Your task to perform on an android device: Open settings Image 0: 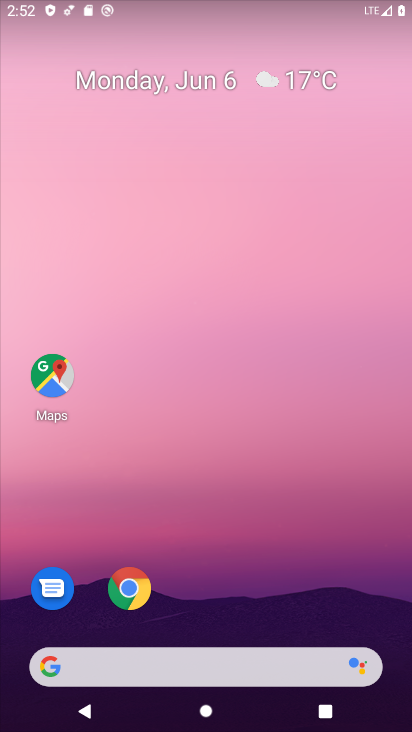
Step 0: drag from (273, 653) to (294, 218)
Your task to perform on an android device: Open settings Image 1: 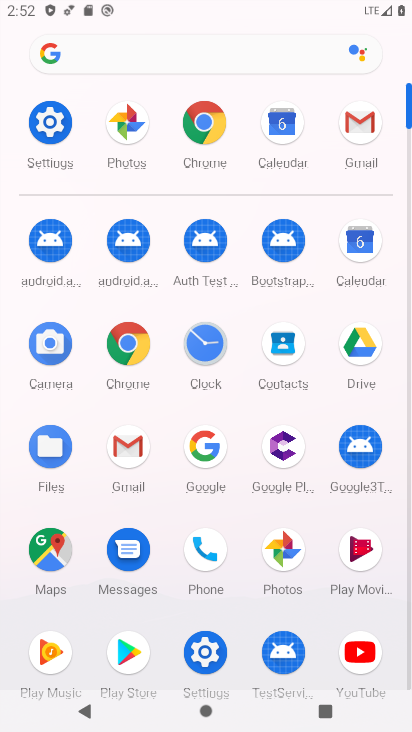
Step 1: click (58, 112)
Your task to perform on an android device: Open settings Image 2: 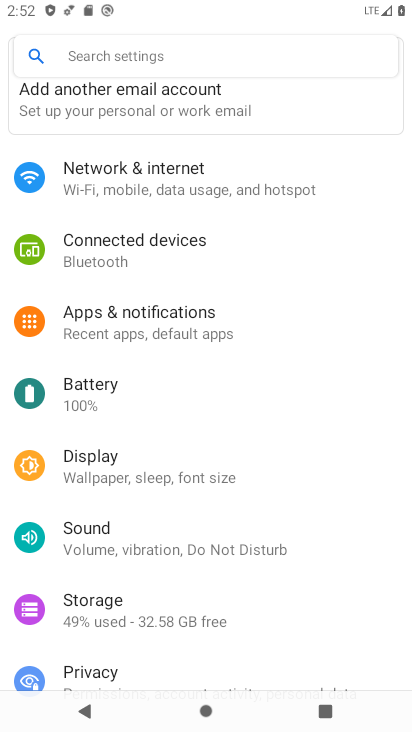
Step 2: task complete